Your task to perform on an android device: open chrome and create a bookmark for the current page Image 0: 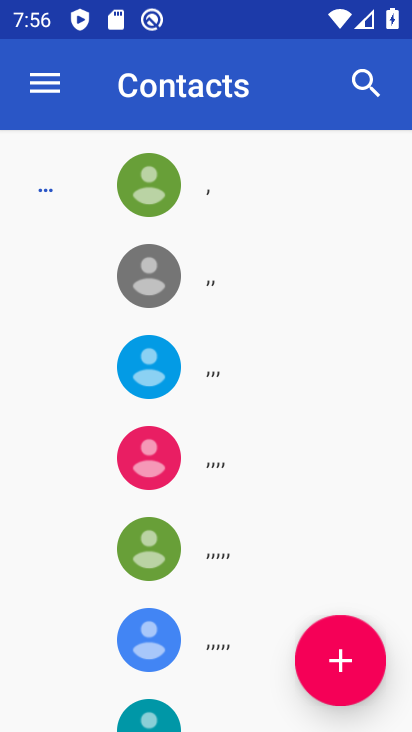
Step 0: press home button
Your task to perform on an android device: open chrome and create a bookmark for the current page Image 1: 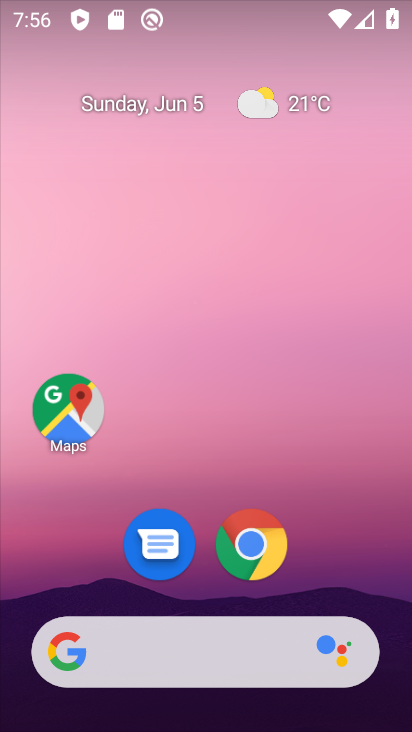
Step 1: click (256, 533)
Your task to perform on an android device: open chrome and create a bookmark for the current page Image 2: 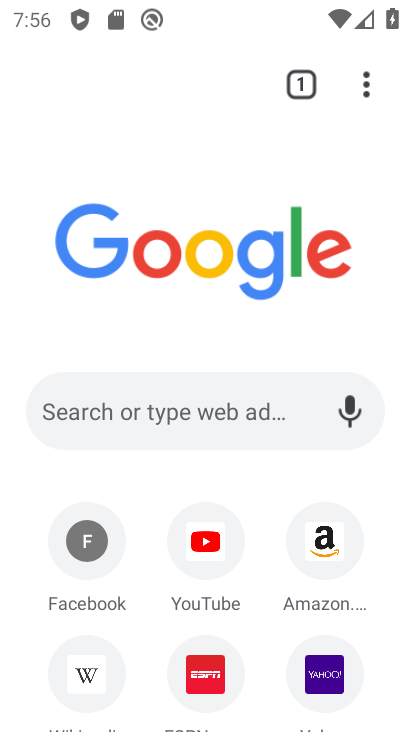
Step 2: click (366, 83)
Your task to perform on an android device: open chrome and create a bookmark for the current page Image 3: 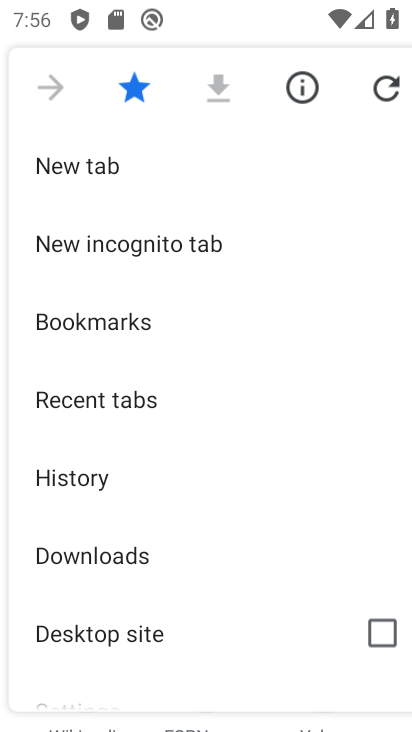
Step 3: task complete